Your task to perform on an android device: Clear the shopping cart on bestbuy. Add "usb-b" to the cart on bestbuy, then select checkout. Image 0: 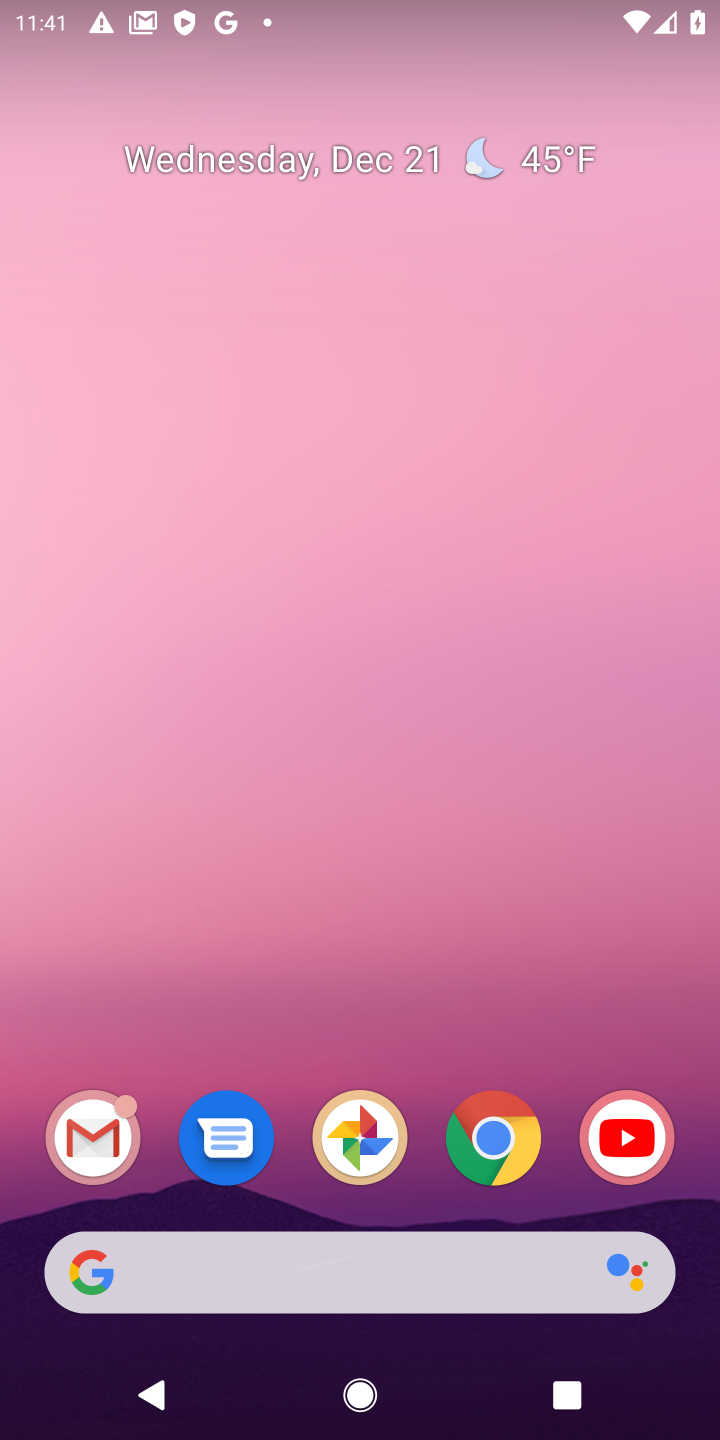
Step 0: click (488, 1137)
Your task to perform on an android device: Clear the shopping cart on bestbuy. Add "usb-b" to the cart on bestbuy, then select checkout. Image 1: 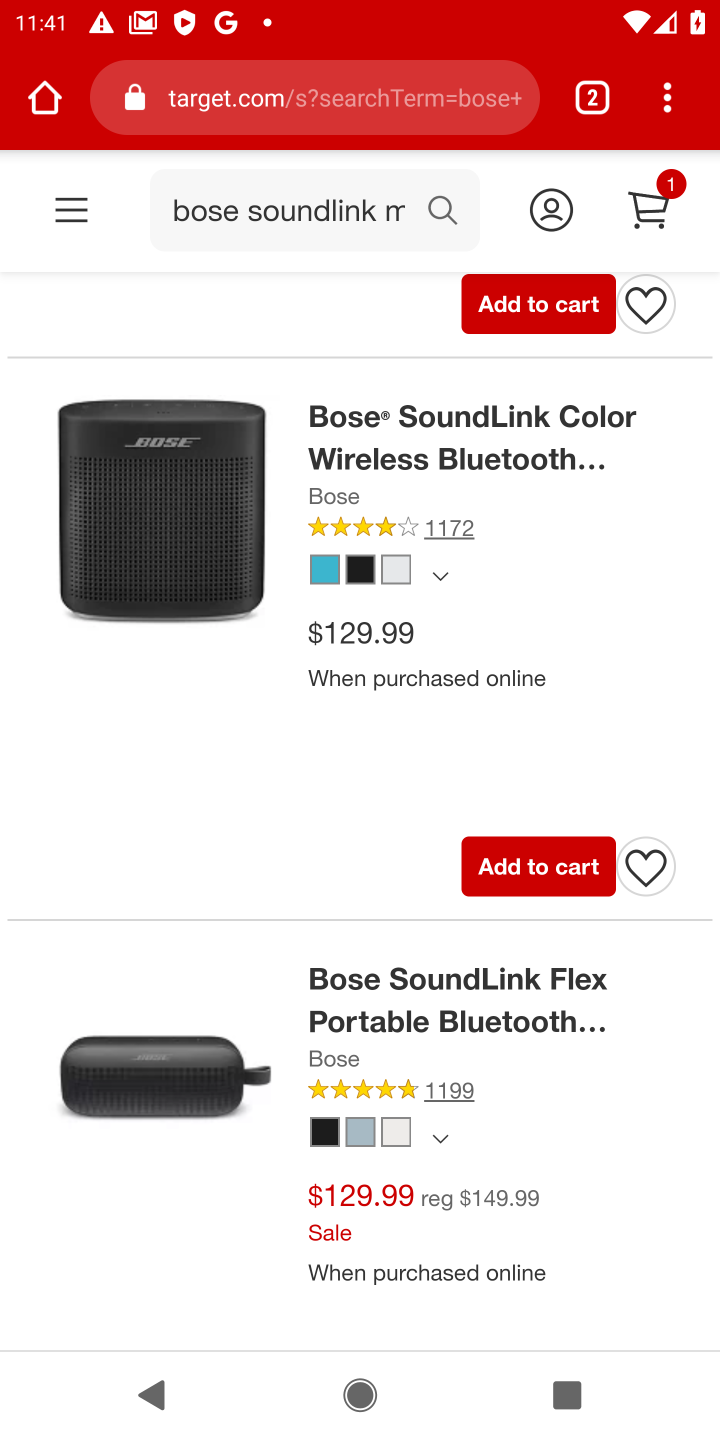
Step 1: click (264, 108)
Your task to perform on an android device: Clear the shopping cart on bestbuy. Add "usb-b" to the cart on bestbuy, then select checkout. Image 2: 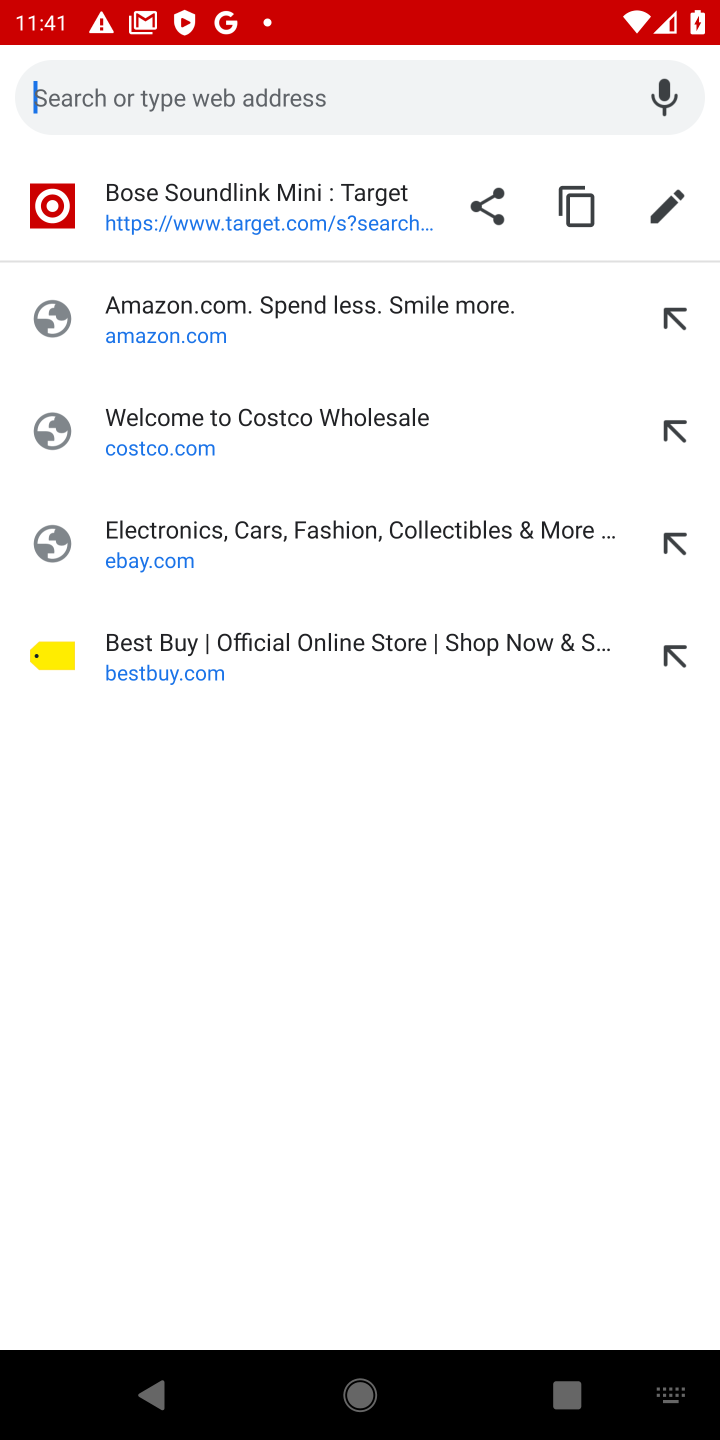
Step 2: click (149, 664)
Your task to perform on an android device: Clear the shopping cart on bestbuy. Add "usb-b" to the cart on bestbuy, then select checkout. Image 3: 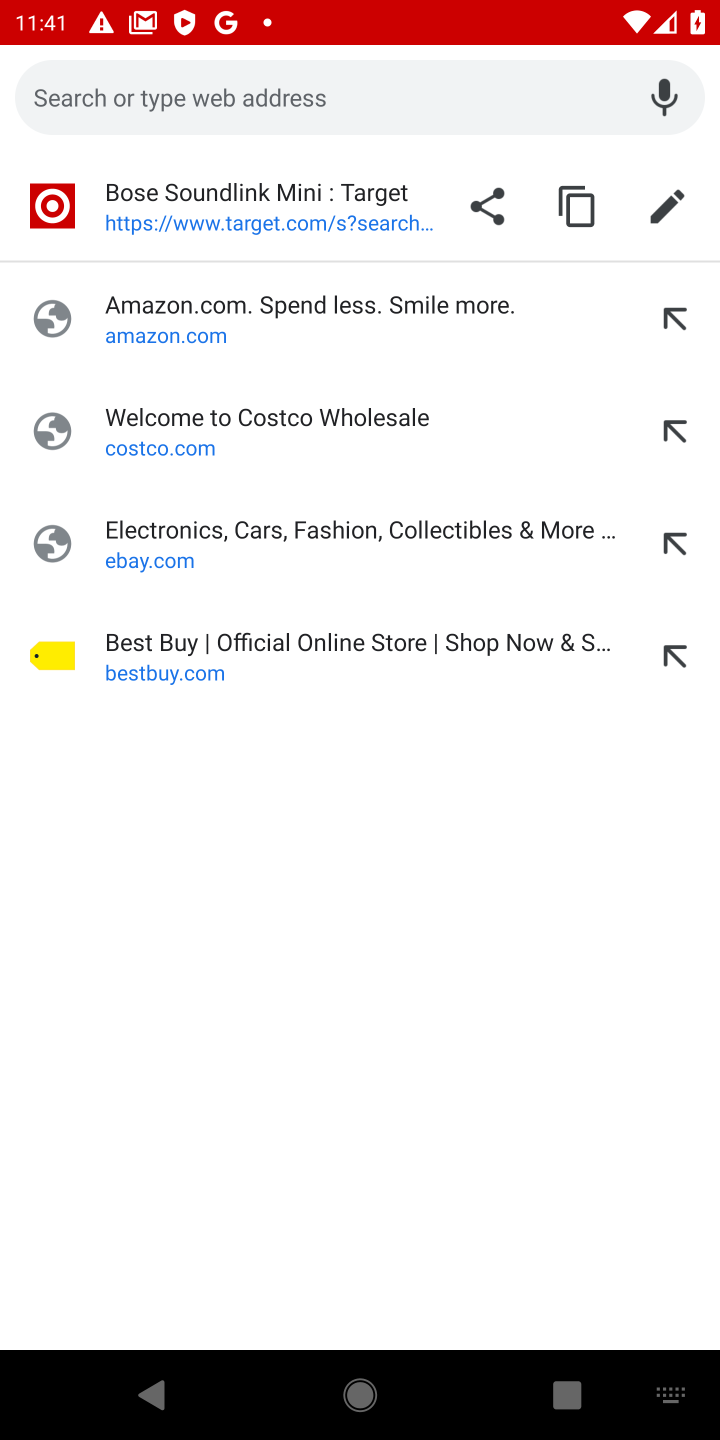
Step 3: click (151, 664)
Your task to perform on an android device: Clear the shopping cart on bestbuy. Add "usb-b" to the cart on bestbuy, then select checkout. Image 4: 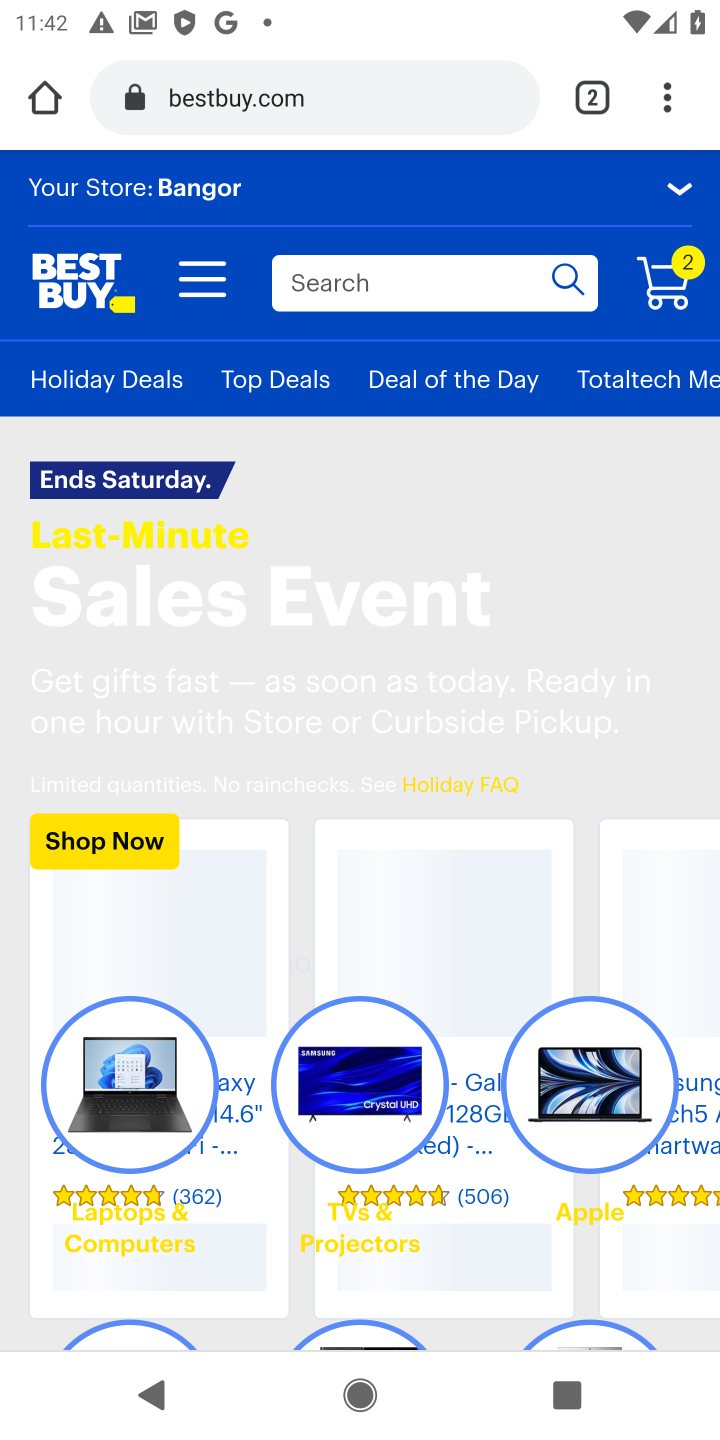
Step 4: click (669, 286)
Your task to perform on an android device: Clear the shopping cart on bestbuy. Add "usb-b" to the cart on bestbuy, then select checkout. Image 5: 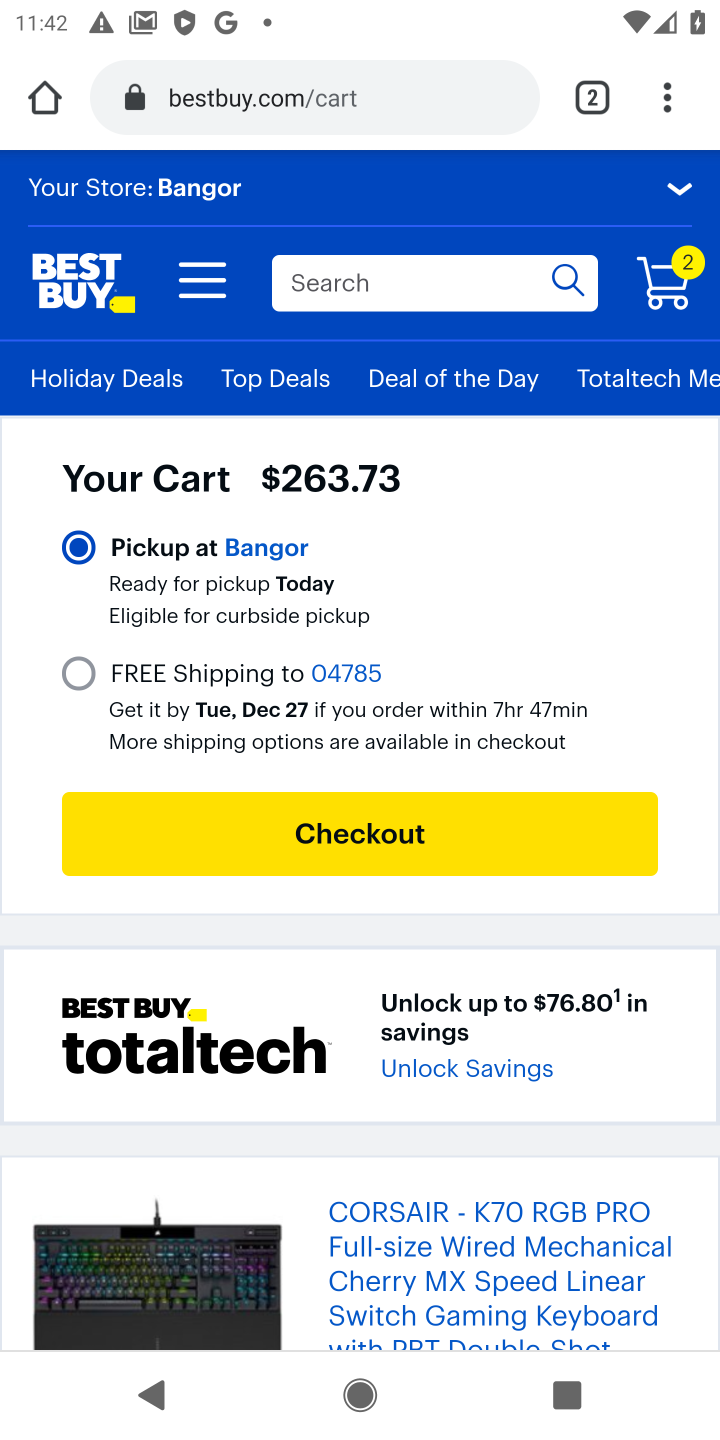
Step 5: drag from (277, 975) to (297, 443)
Your task to perform on an android device: Clear the shopping cart on bestbuy. Add "usb-b" to the cart on bestbuy, then select checkout. Image 6: 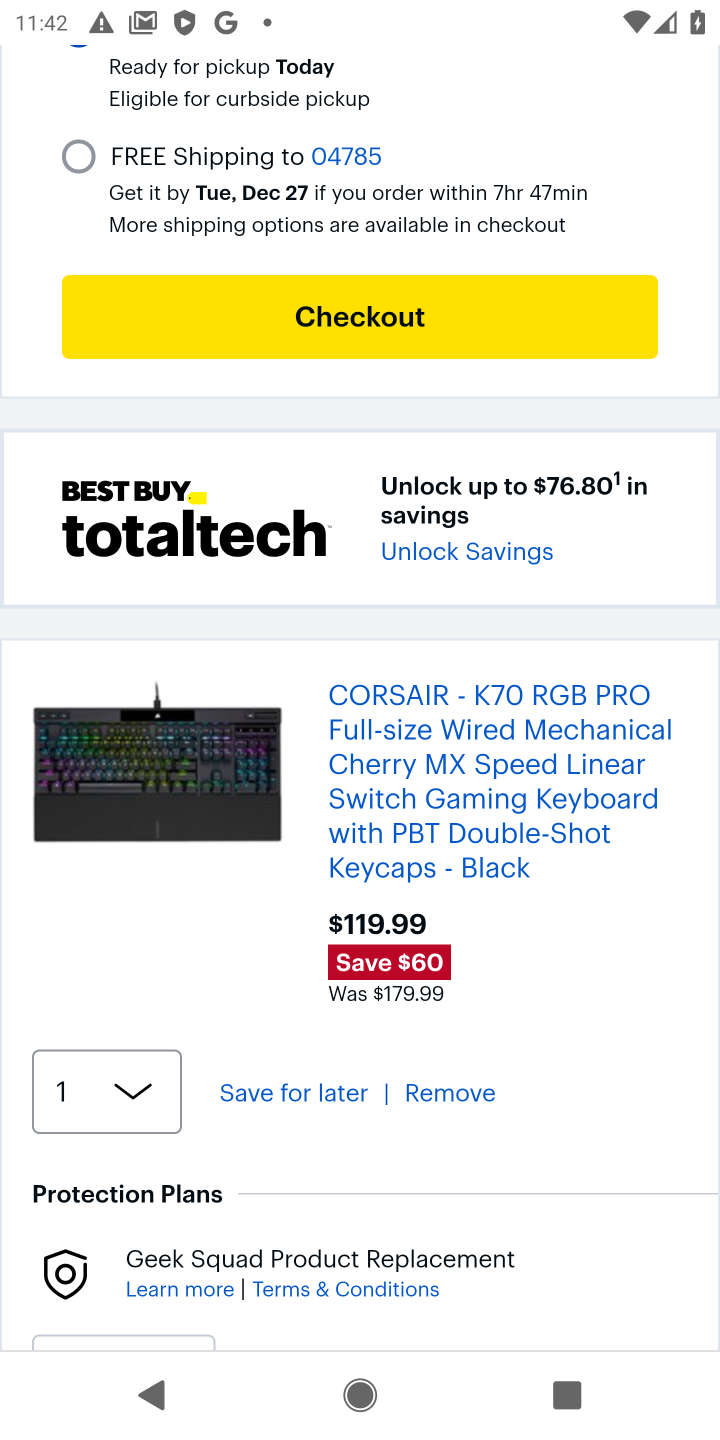
Step 6: click (440, 1109)
Your task to perform on an android device: Clear the shopping cart on bestbuy. Add "usb-b" to the cart on bestbuy, then select checkout. Image 7: 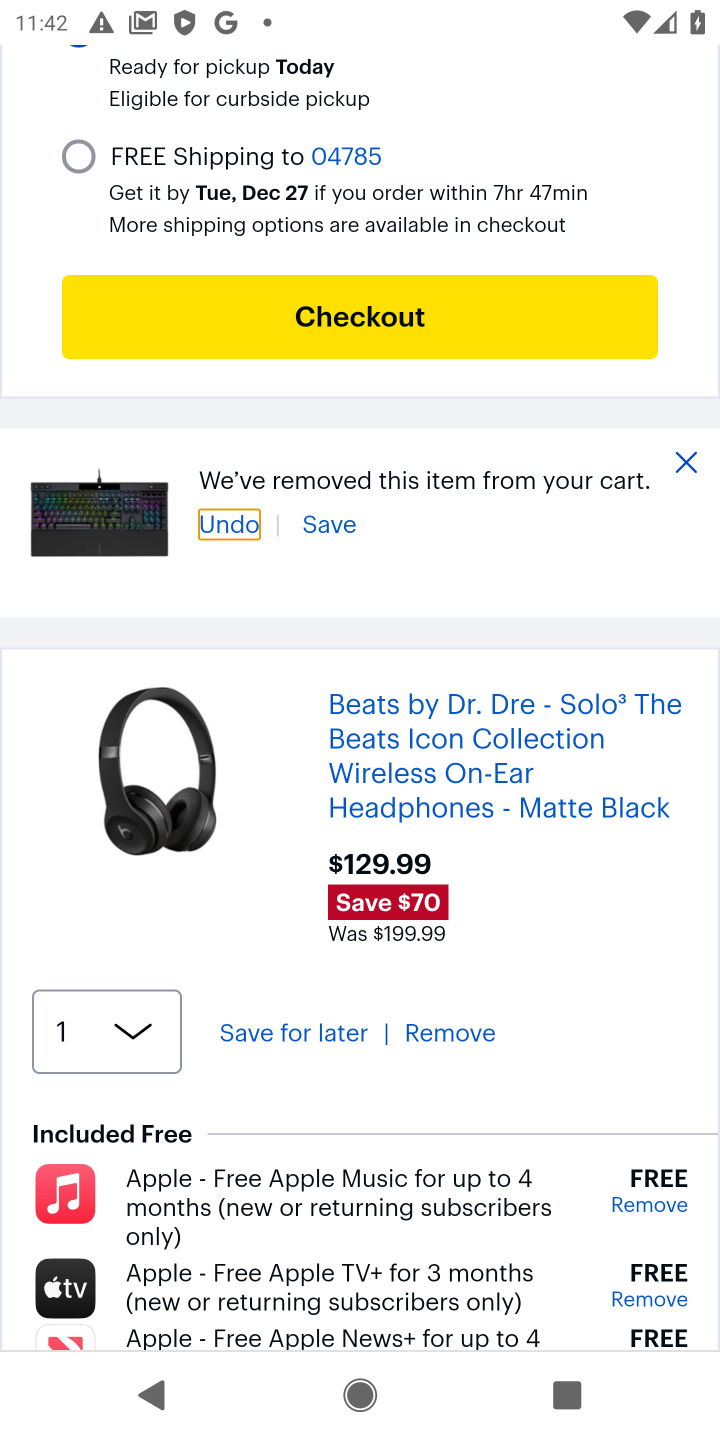
Step 7: click (435, 1042)
Your task to perform on an android device: Clear the shopping cart on bestbuy. Add "usb-b" to the cart on bestbuy, then select checkout. Image 8: 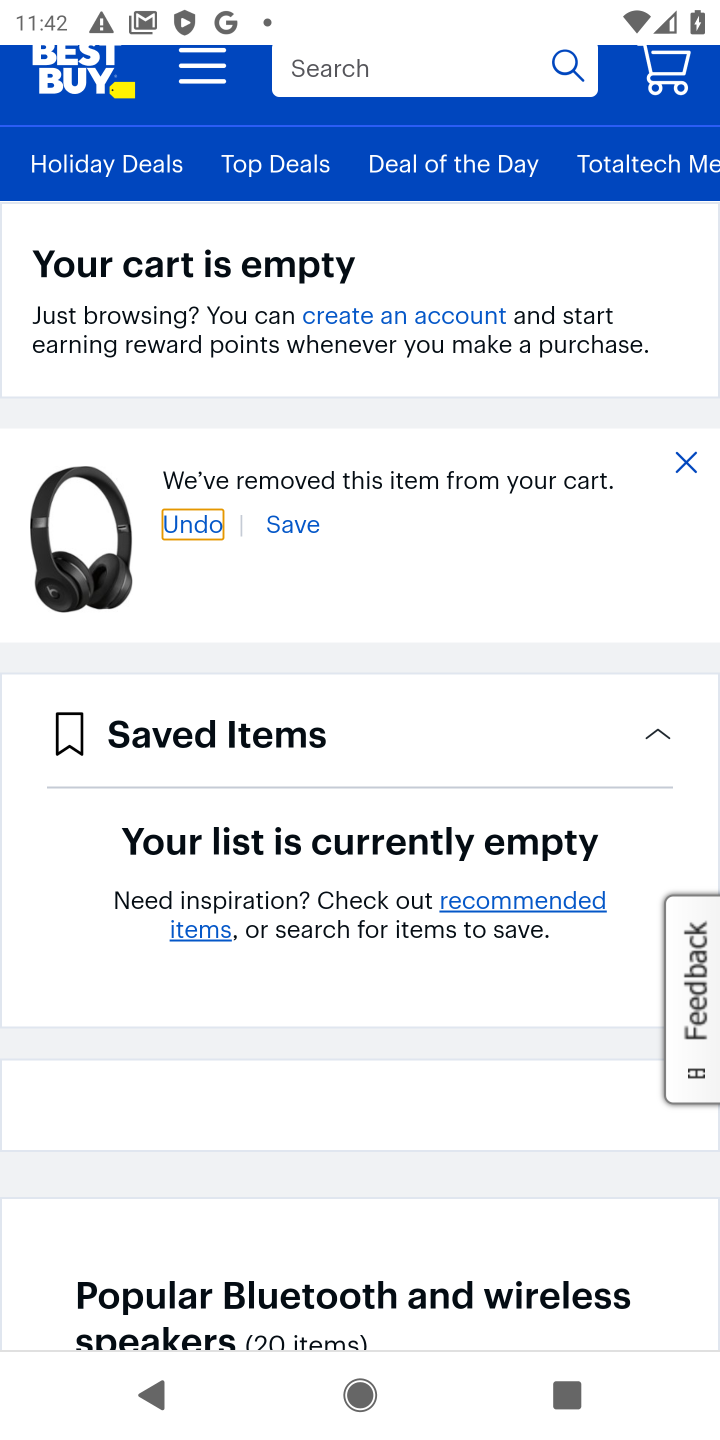
Step 8: click (339, 76)
Your task to perform on an android device: Clear the shopping cart on bestbuy. Add "usb-b" to the cart on bestbuy, then select checkout. Image 9: 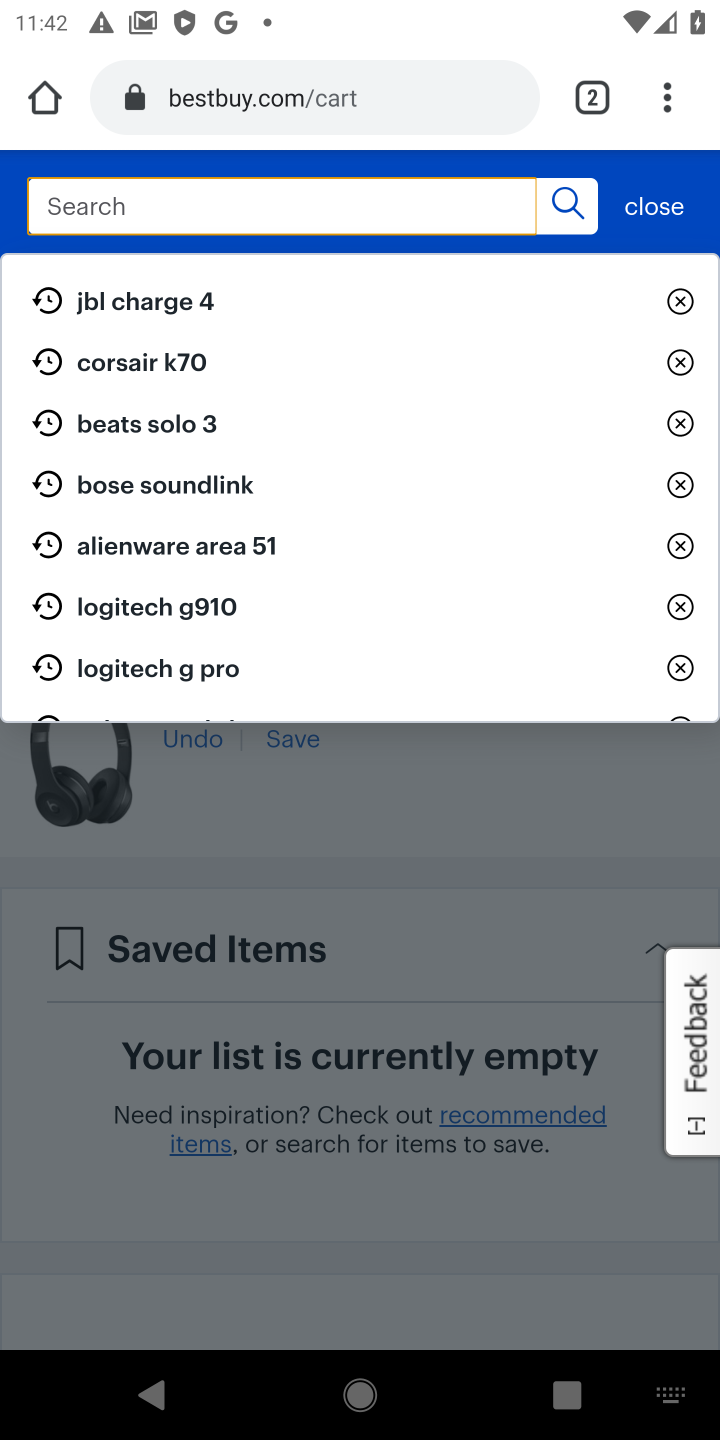
Step 9: type "usb-b"
Your task to perform on an android device: Clear the shopping cart on bestbuy. Add "usb-b" to the cart on bestbuy, then select checkout. Image 10: 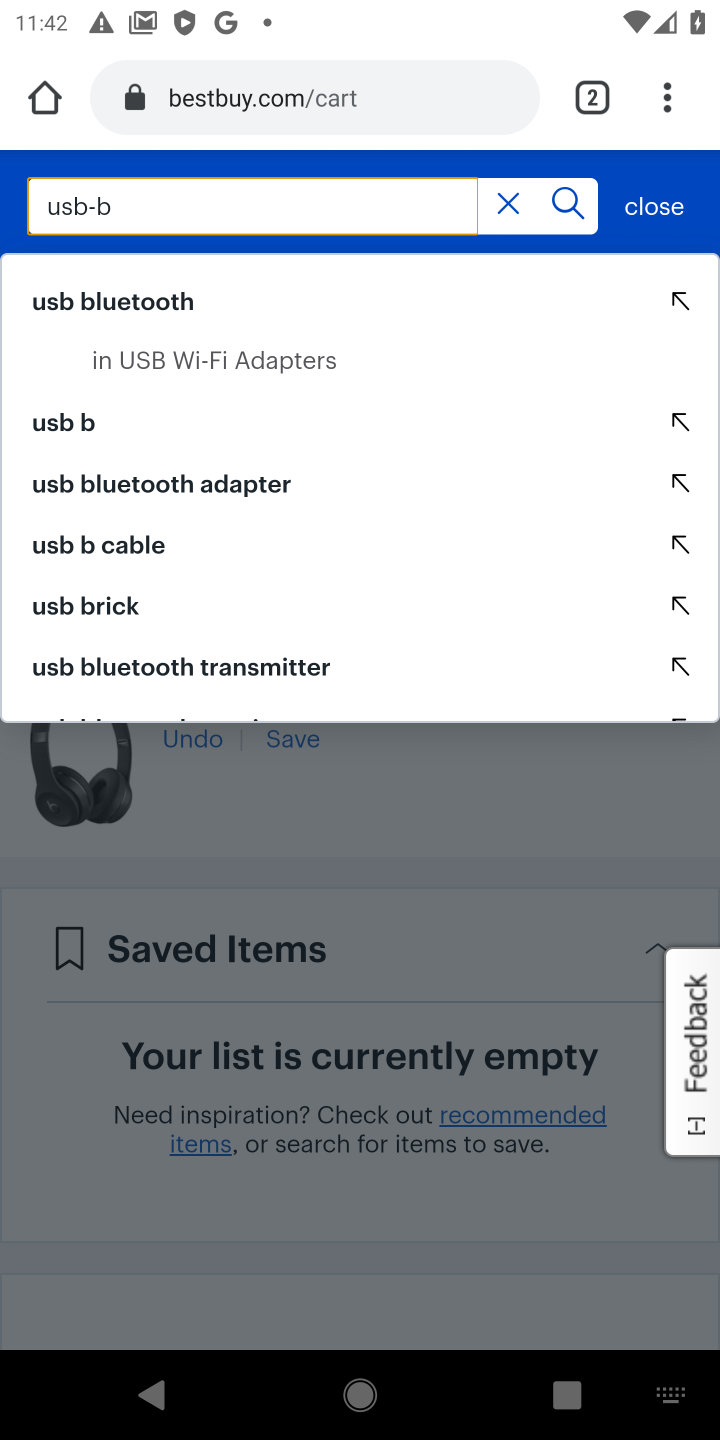
Step 10: click (53, 423)
Your task to perform on an android device: Clear the shopping cart on bestbuy. Add "usb-b" to the cart on bestbuy, then select checkout. Image 11: 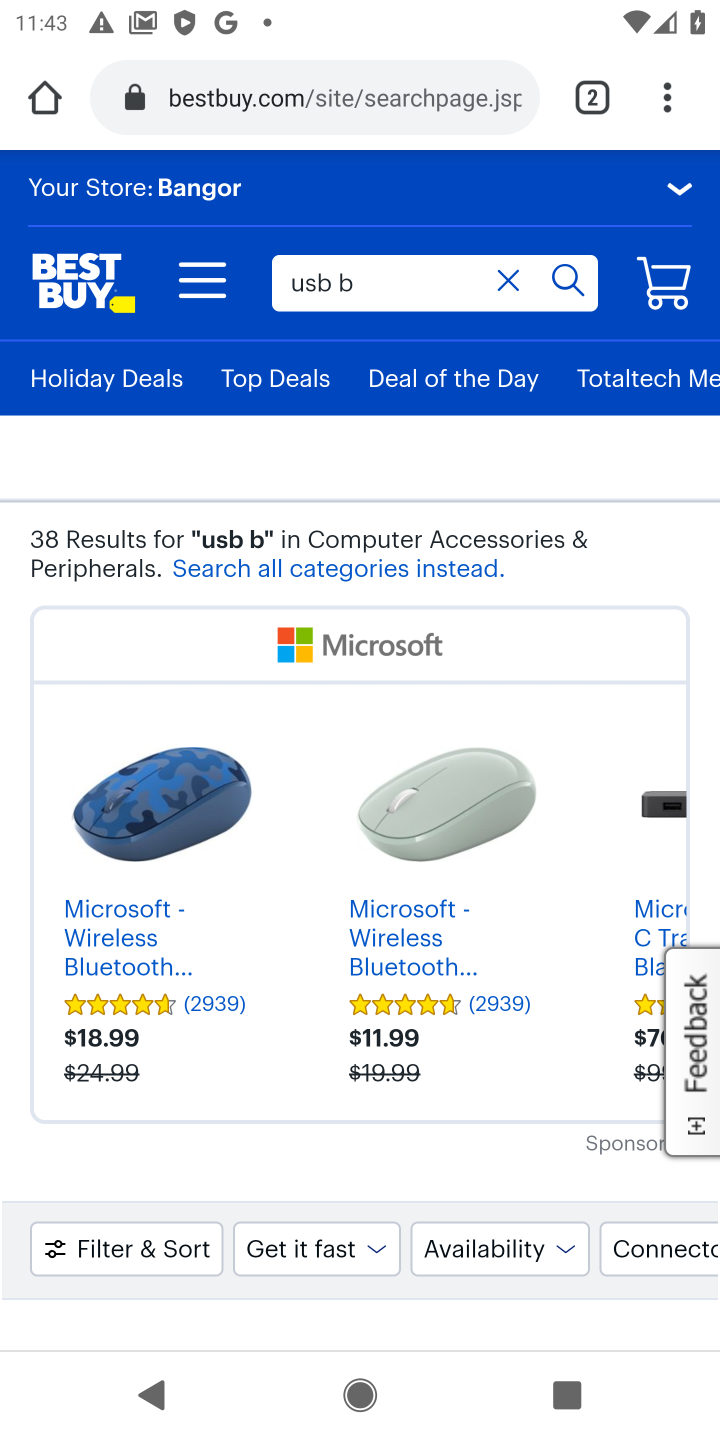
Step 11: drag from (324, 1082) to (329, 532)
Your task to perform on an android device: Clear the shopping cart on bestbuy. Add "usb-b" to the cart on bestbuy, then select checkout. Image 12: 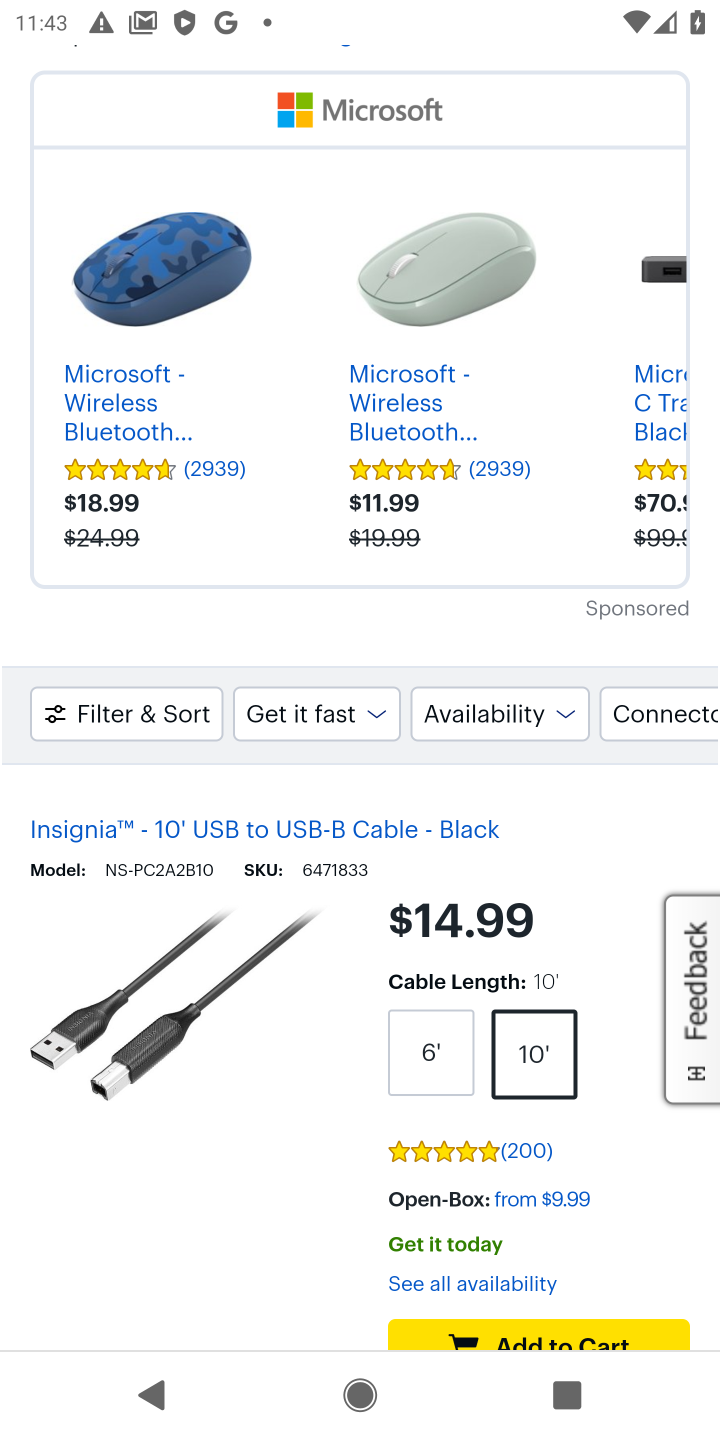
Step 12: drag from (241, 975) to (275, 672)
Your task to perform on an android device: Clear the shopping cart on bestbuy. Add "usb-b" to the cart on bestbuy, then select checkout. Image 13: 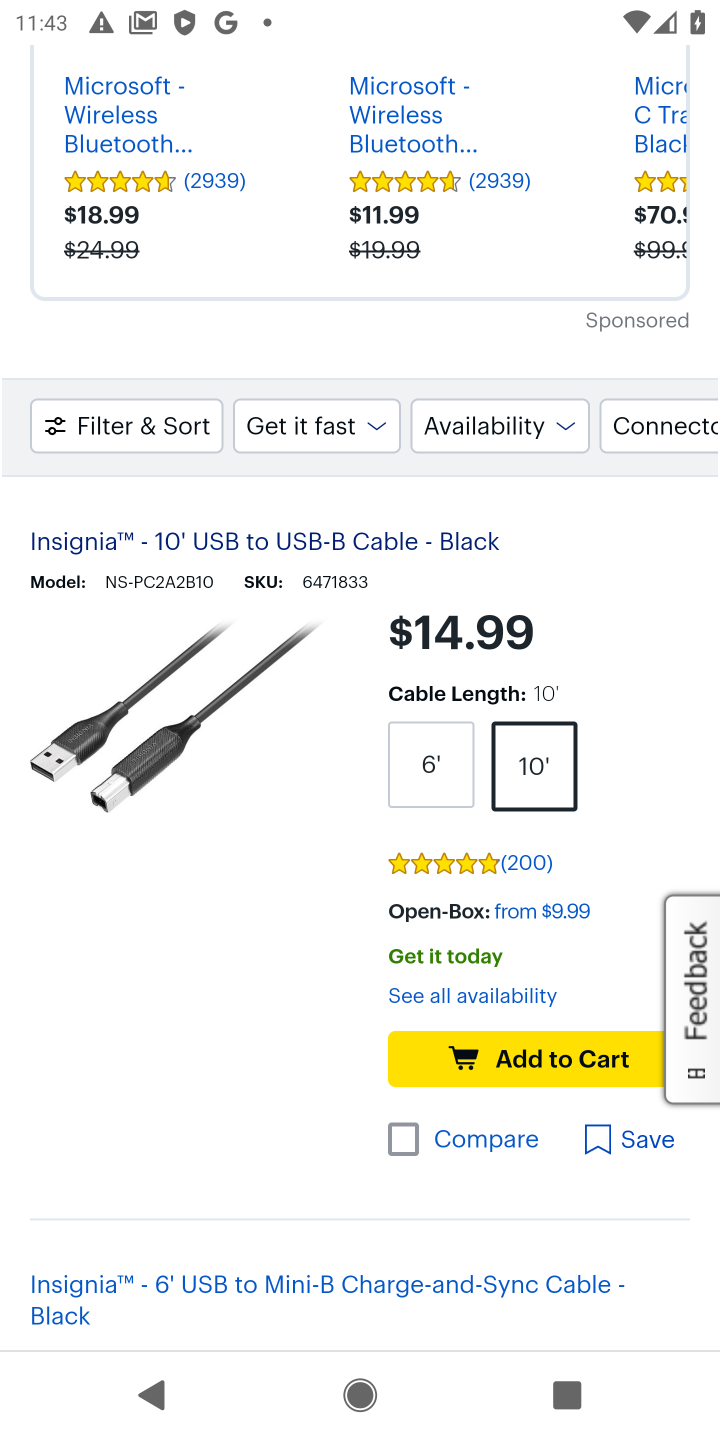
Step 13: click (473, 1049)
Your task to perform on an android device: Clear the shopping cart on bestbuy. Add "usb-b" to the cart on bestbuy, then select checkout. Image 14: 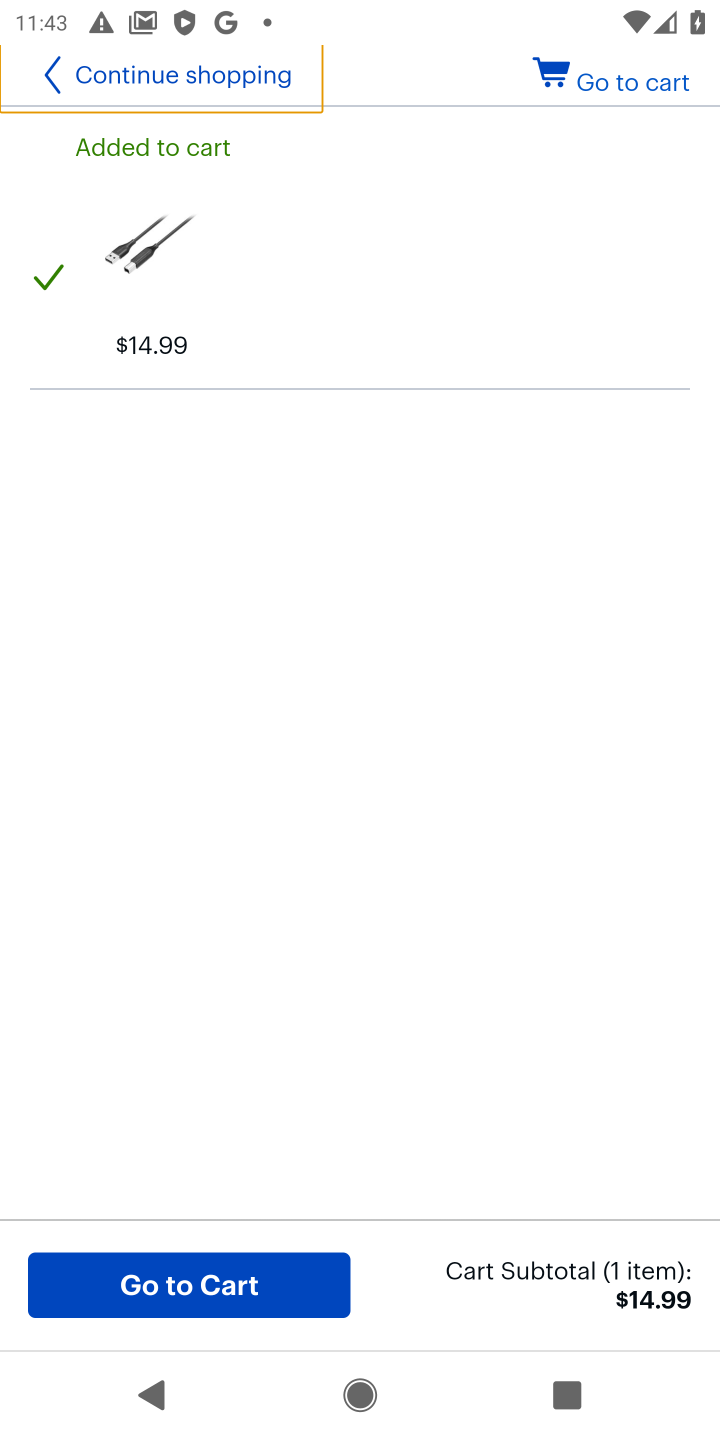
Step 14: click (613, 84)
Your task to perform on an android device: Clear the shopping cart on bestbuy. Add "usb-b" to the cart on bestbuy, then select checkout. Image 15: 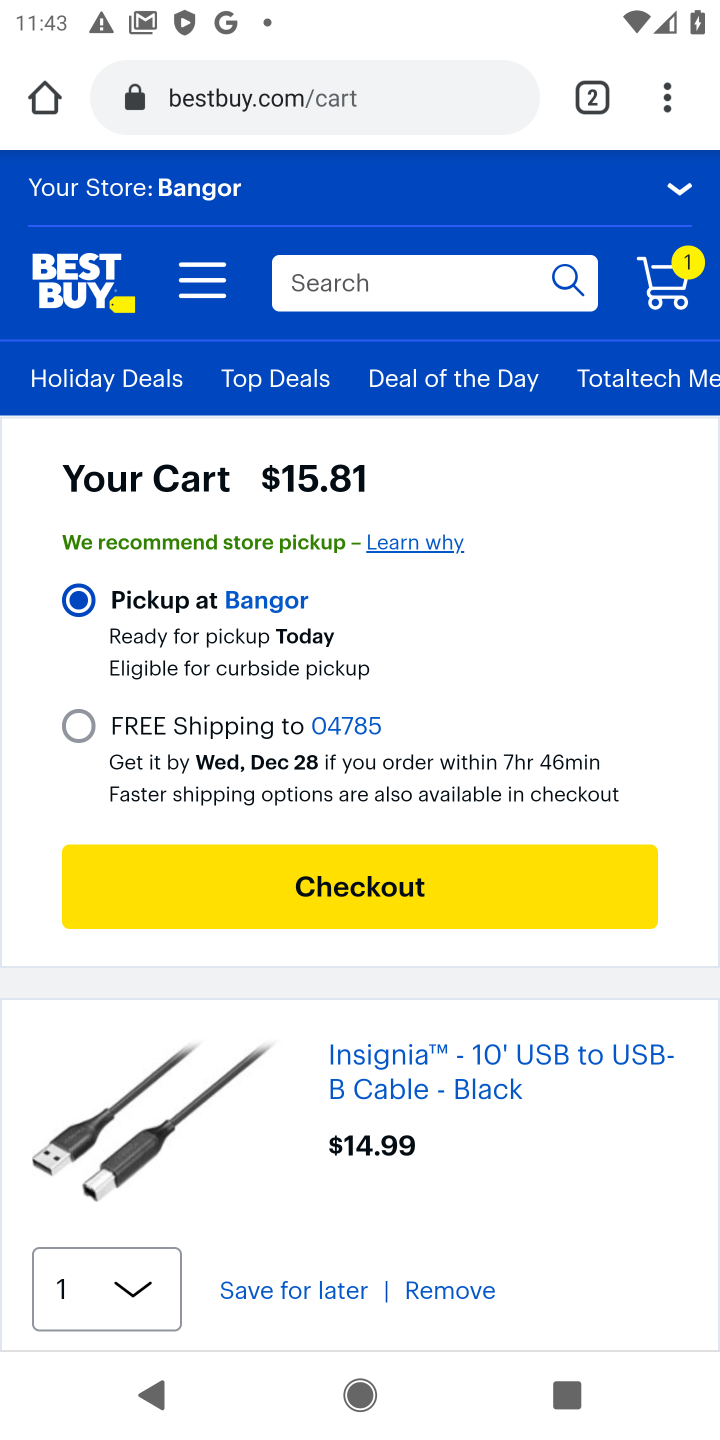
Step 15: click (369, 891)
Your task to perform on an android device: Clear the shopping cart on bestbuy. Add "usb-b" to the cart on bestbuy, then select checkout. Image 16: 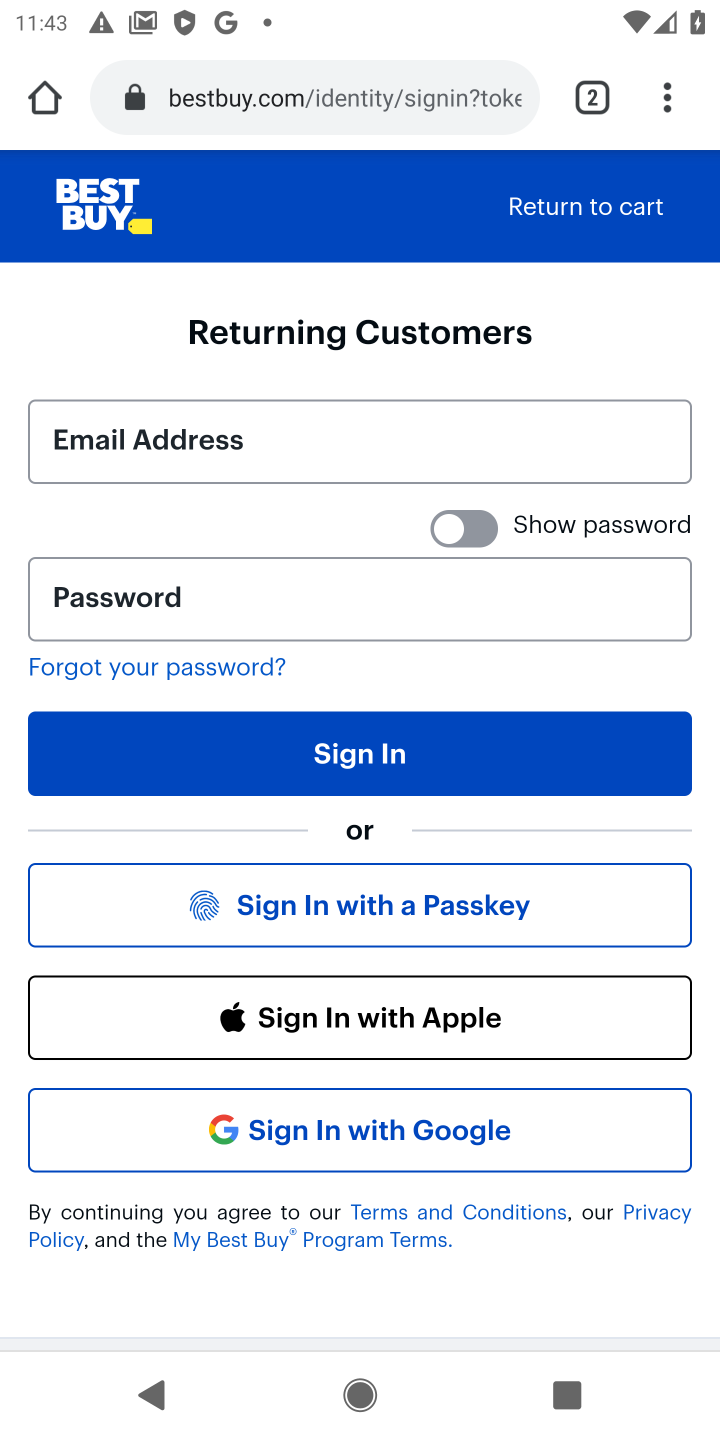
Step 16: task complete